Your task to perform on an android device: Clear the cart on costco.com. Search for macbook pro 13 inch on costco.com, select the first entry, add it to the cart, then select checkout. Image 0: 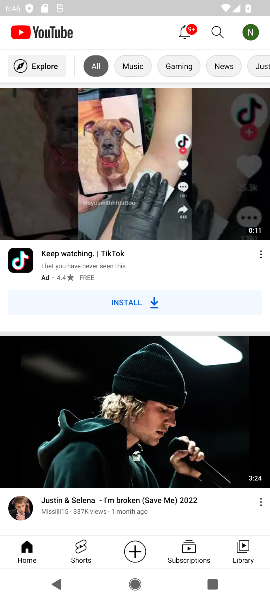
Step 0: press home button
Your task to perform on an android device: Clear the cart on costco.com. Search for macbook pro 13 inch on costco.com, select the first entry, add it to the cart, then select checkout. Image 1: 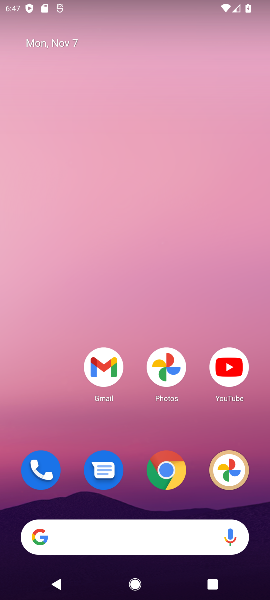
Step 1: click (162, 492)
Your task to perform on an android device: Clear the cart on costco.com. Search for macbook pro 13 inch on costco.com, select the first entry, add it to the cart, then select checkout. Image 2: 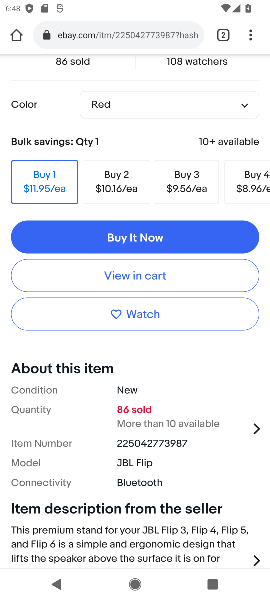
Step 2: click (97, 23)
Your task to perform on an android device: Clear the cart on costco.com. Search for macbook pro 13 inch on costco.com, select the first entry, add it to the cart, then select checkout. Image 3: 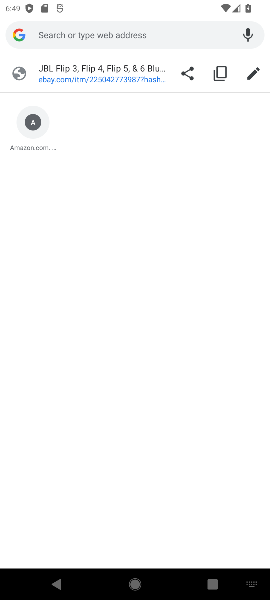
Step 3: click (100, 37)
Your task to perform on an android device: Clear the cart on costco.com. Search for macbook pro 13 inch on costco.com, select the first entry, add it to the cart, then select checkout. Image 4: 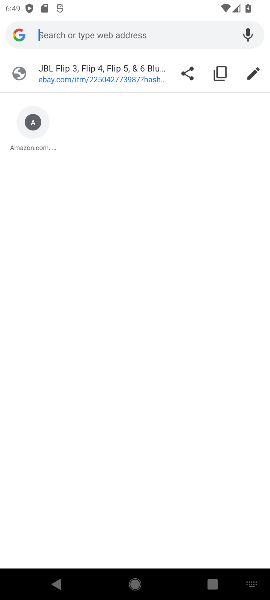
Step 4: type "costco"
Your task to perform on an android device: Clear the cart on costco.com. Search for macbook pro 13 inch on costco.com, select the first entry, add it to the cart, then select checkout. Image 5: 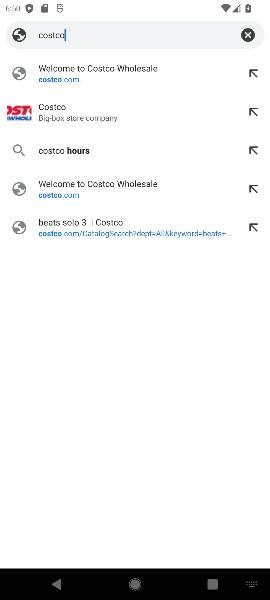
Step 5: click (123, 120)
Your task to perform on an android device: Clear the cart on costco.com. Search for macbook pro 13 inch on costco.com, select the first entry, add it to the cart, then select checkout. Image 6: 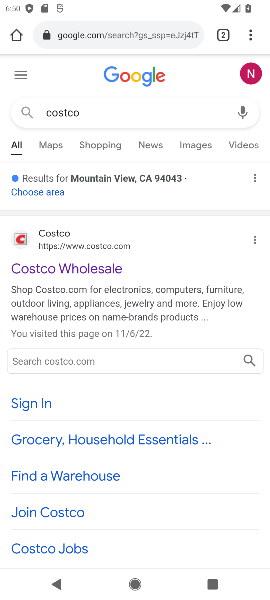
Step 6: click (90, 114)
Your task to perform on an android device: Clear the cart on costco.com. Search for macbook pro 13 inch on costco.com, select the first entry, add it to the cart, then select checkout. Image 7: 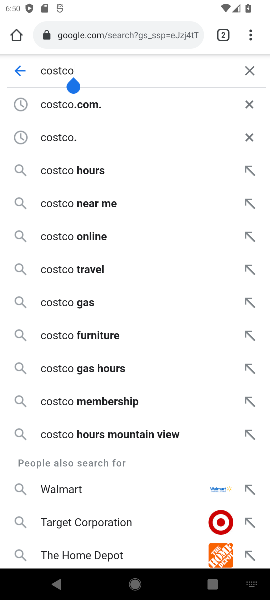
Step 7: click (34, 269)
Your task to perform on an android device: Clear the cart on costco.com. Search for macbook pro 13 inch on costco.com, select the first entry, add it to the cart, then select checkout. Image 8: 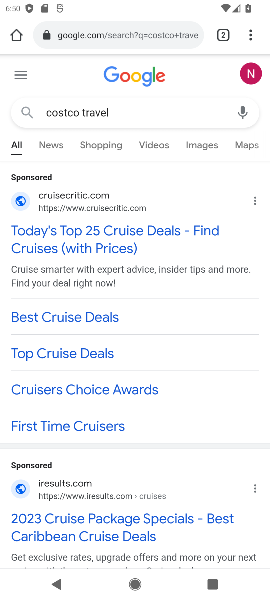
Step 8: click (62, 228)
Your task to perform on an android device: Clear the cart on costco.com. Search for macbook pro 13 inch on costco.com, select the first entry, add it to the cart, then select checkout. Image 9: 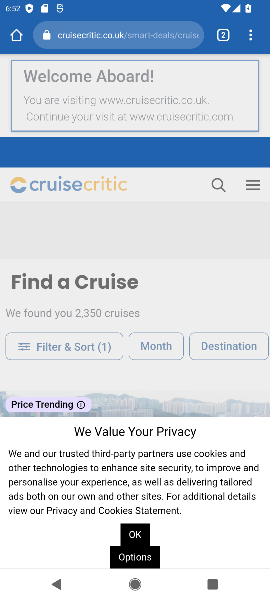
Step 9: click (103, 31)
Your task to perform on an android device: Clear the cart on costco.com. Search for macbook pro 13 inch on costco.com, select the first entry, add it to the cart, then select checkout. Image 10: 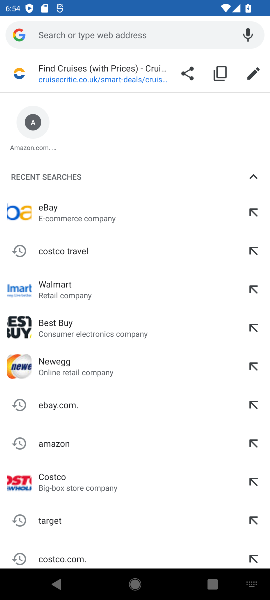
Step 10: type "costco"
Your task to perform on an android device: Clear the cart on costco.com. Search for macbook pro 13 inch on costco.com, select the first entry, add it to the cart, then select checkout. Image 11: 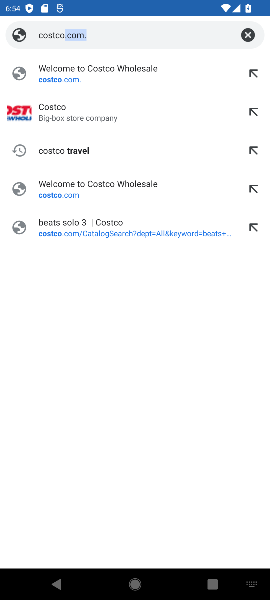
Step 11: click (82, 124)
Your task to perform on an android device: Clear the cart on costco.com. Search for macbook pro 13 inch on costco.com, select the first entry, add it to the cart, then select checkout. Image 12: 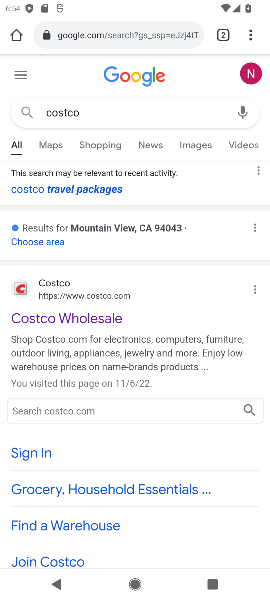
Step 12: click (101, 317)
Your task to perform on an android device: Clear the cart on costco.com. Search for macbook pro 13 inch on costco.com, select the first entry, add it to the cart, then select checkout. Image 13: 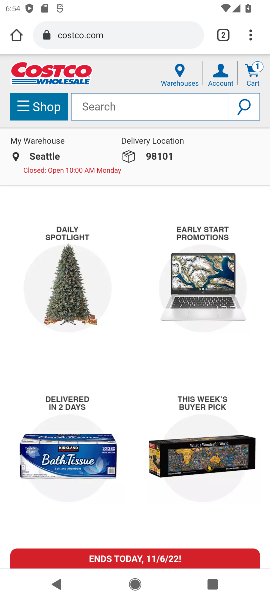
Step 13: click (248, 78)
Your task to perform on an android device: Clear the cart on costco.com. Search for macbook pro 13 inch on costco.com, select the first entry, add it to the cart, then select checkout. Image 14: 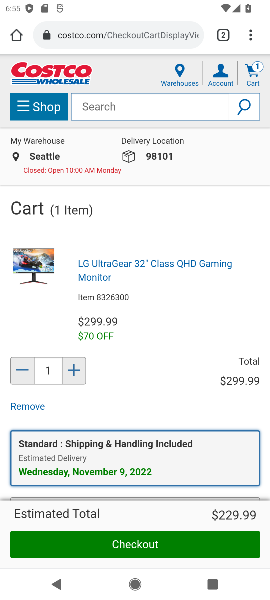
Step 14: click (35, 405)
Your task to perform on an android device: Clear the cart on costco.com. Search for macbook pro 13 inch on costco.com, select the first entry, add it to the cart, then select checkout. Image 15: 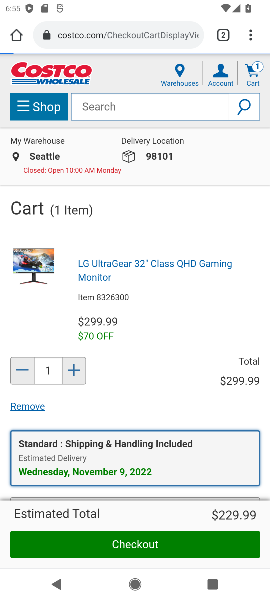
Step 15: click (35, 405)
Your task to perform on an android device: Clear the cart on costco.com. Search for macbook pro 13 inch on costco.com, select the first entry, add it to the cart, then select checkout. Image 16: 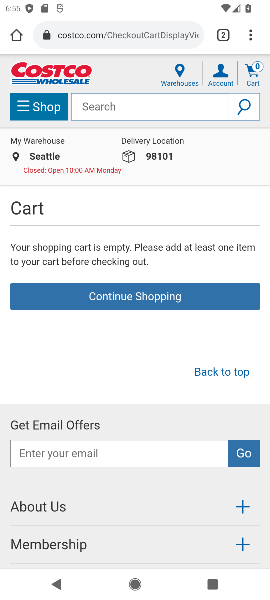
Step 16: click (123, 116)
Your task to perform on an android device: Clear the cart on costco.com. Search for macbook pro 13 inch on costco.com, select the first entry, add it to the cart, then select checkout. Image 17: 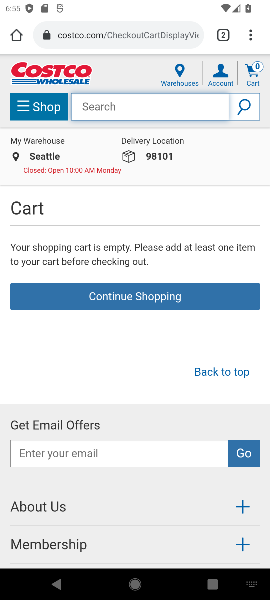
Step 17: type "macbook pro 13"
Your task to perform on an android device: Clear the cart on costco.com. Search for macbook pro 13 inch on costco.com, select the first entry, add it to the cart, then select checkout. Image 18: 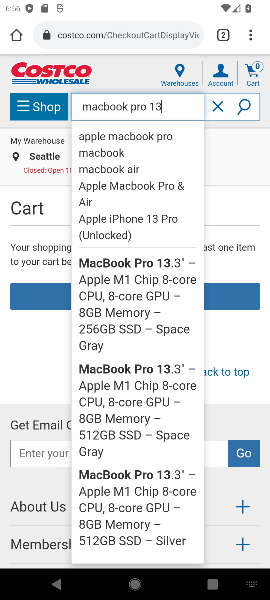
Step 18: click (246, 117)
Your task to perform on an android device: Clear the cart on costco.com. Search for macbook pro 13 inch on costco.com, select the first entry, add it to the cart, then select checkout. Image 19: 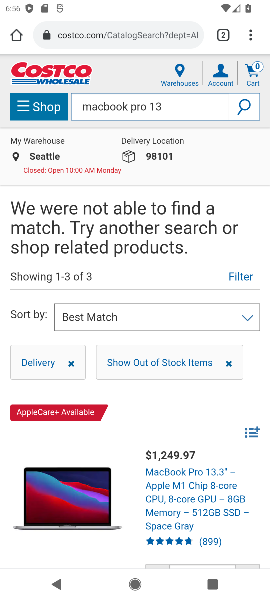
Step 19: drag from (129, 528) to (174, 208)
Your task to perform on an android device: Clear the cart on costco.com. Search for macbook pro 13 inch on costco.com, select the first entry, add it to the cart, then select checkout. Image 20: 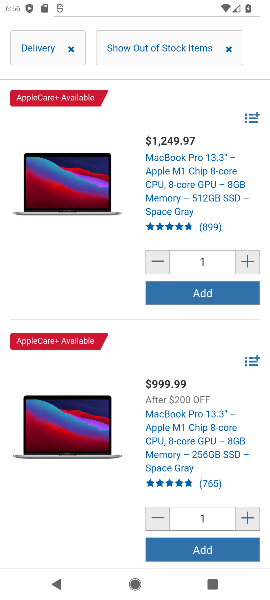
Step 20: click (203, 292)
Your task to perform on an android device: Clear the cart on costco.com. Search for macbook pro 13 inch on costco.com, select the first entry, add it to the cart, then select checkout. Image 21: 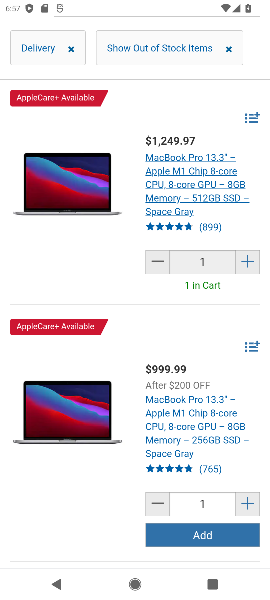
Step 21: drag from (146, 72) to (128, 395)
Your task to perform on an android device: Clear the cart on costco.com. Search for macbook pro 13 inch on costco.com, select the first entry, add it to the cart, then select checkout. Image 22: 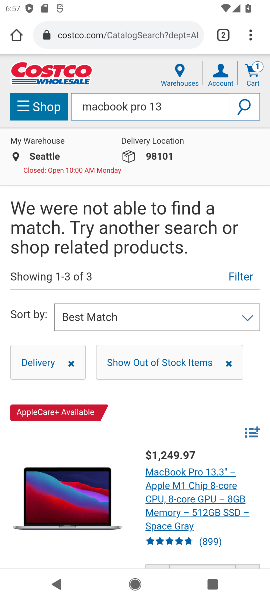
Step 22: drag from (127, 524) to (151, 263)
Your task to perform on an android device: Clear the cart on costco.com. Search for macbook pro 13 inch on costco.com, select the first entry, add it to the cart, then select checkout. Image 23: 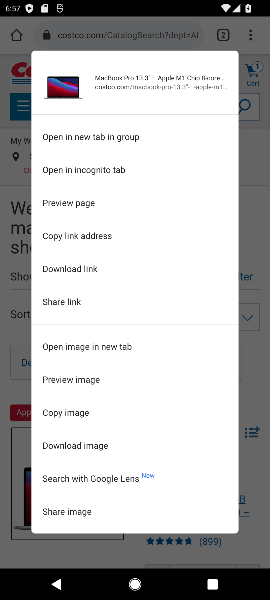
Step 23: click (244, 205)
Your task to perform on an android device: Clear the cart on costco.com. Search for macbook pro 13 inch on costco.com, select the first entry, add it to the cart, then select checkout. Image 24: 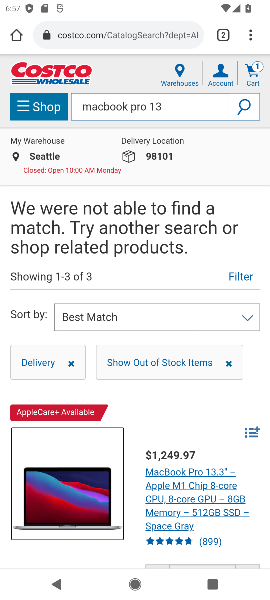
Step 24: drag from (151, 426) to (177, 160)
Your task to perform on an android device: Clear the cart on costco.com. Search for macbook pro 13 inch on costco.com, select the first entry, add it to the cart, then select checkout. Image 25: 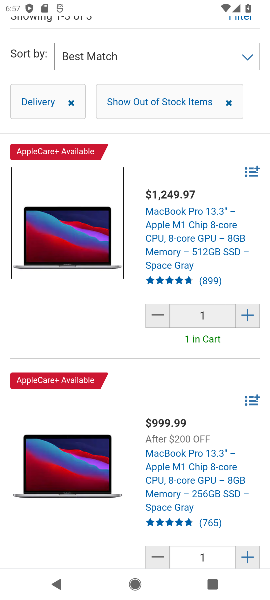
Step 25: drag from (190, 94) to (202, 527)
Your task to perform on an android device: Clear the cart on costco.com. Search for macbook pro 13 inch on costco.com, select the first entry, add it to the cart, then select checkout. Image 26: 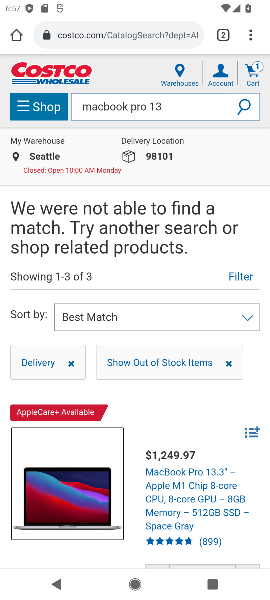
Step 26: click (248, 72)
Your task to perform on an android device: Clear the cart on costco.com. Search for macbook pro 13 inch on costco.com, select the first entry, add it to the cart, then select checkout. Image 27: 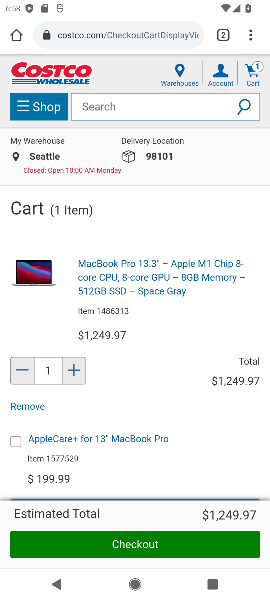
Step 27: click (161, 534)
Your task to perform on an android device: Clear the cart on costco.com. Search for macbook pro 13 inch on costco.com, select the first entry, add it to the cart, then select checkout. Image 28: 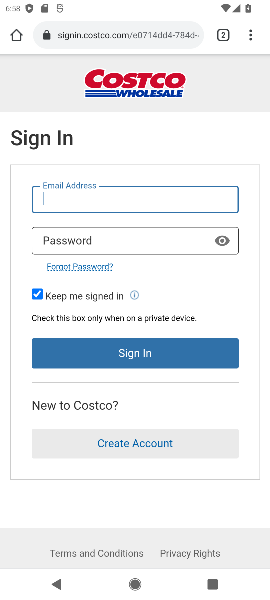
Step 28: task complete